Your task to perform on an android device: turn off notifications settings in the gmail app Image 0: 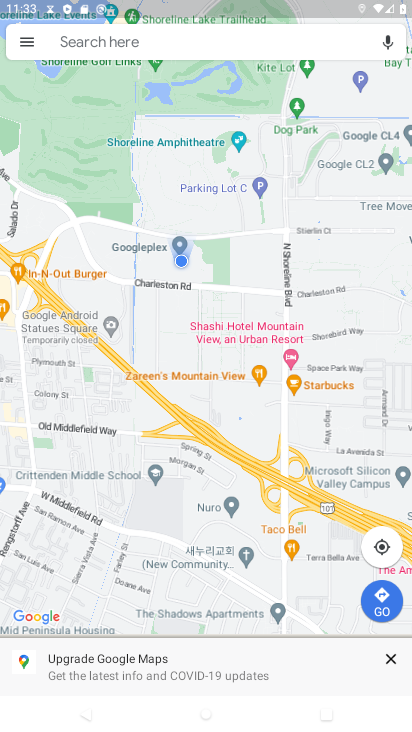
Step 0: press home button
Your task to perform on an android device: turn off notifications settings in the gmail app Image 1: 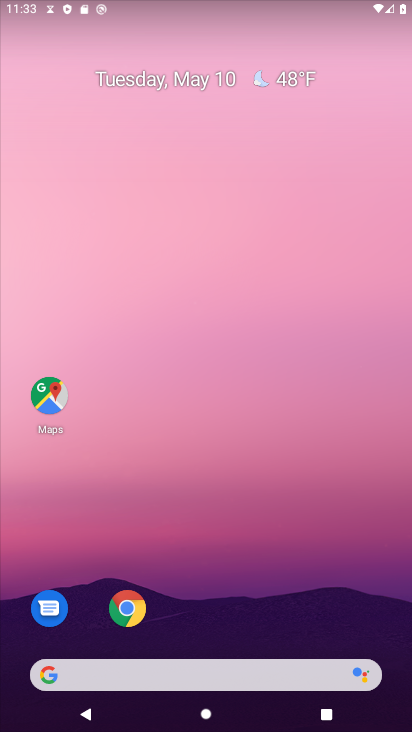
Step 1: drag from (212, 645) to (105, 217)
Your task to perform on an android device: turn off notifications settings in the gmail app Image 2: 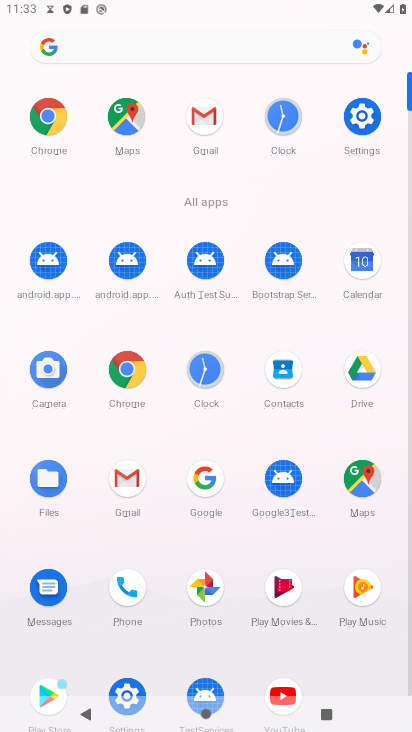
Step 2: click (210, 106)
Your task to perform on an android device: turn off notifications settings in the gmail app Image 3: 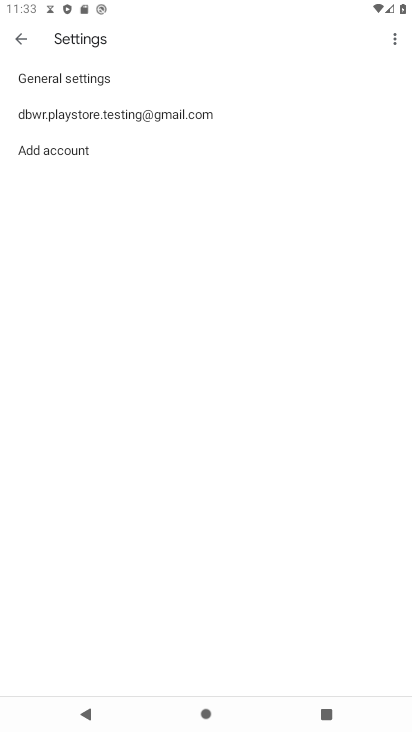
Step 3: click (171, 115)
Your task to perform on an android device: turn off notifications settings in the gmail app Image 4: 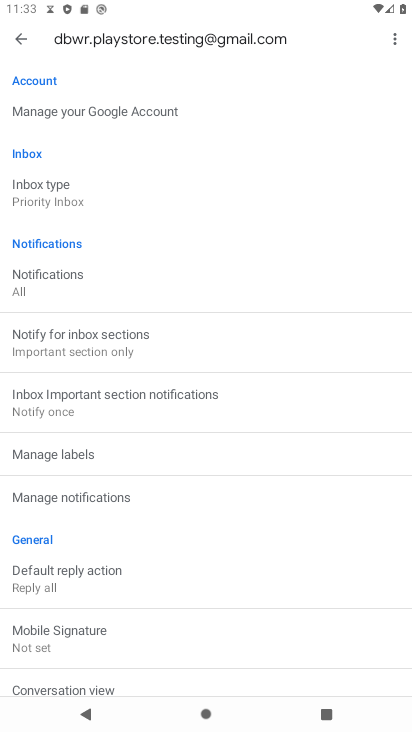
Step 4: click (64, 499)
Your task to perform on an android device: turn off notifications settings in the gmail app Image 5: 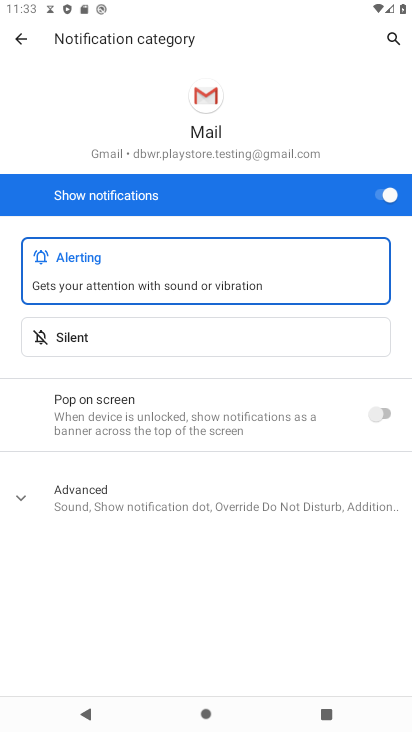
Step 5: click (382, 198)
Your task to perform on an android device: turn off notifications settings in the gmail app Image 6: 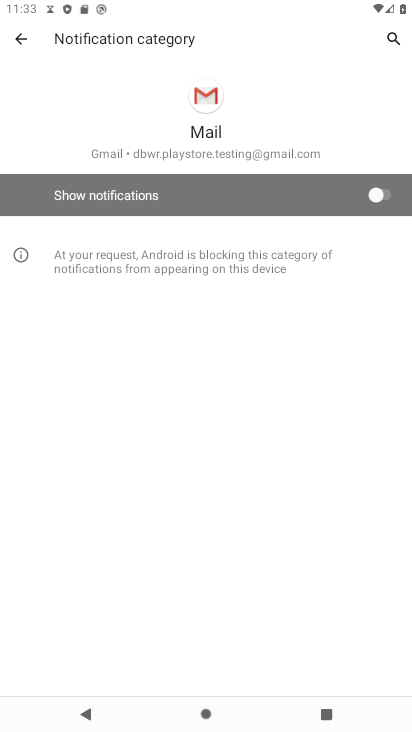
Step 6: task complete